Your task to perform on an android device: Do I have any events this weekend? Image 0: 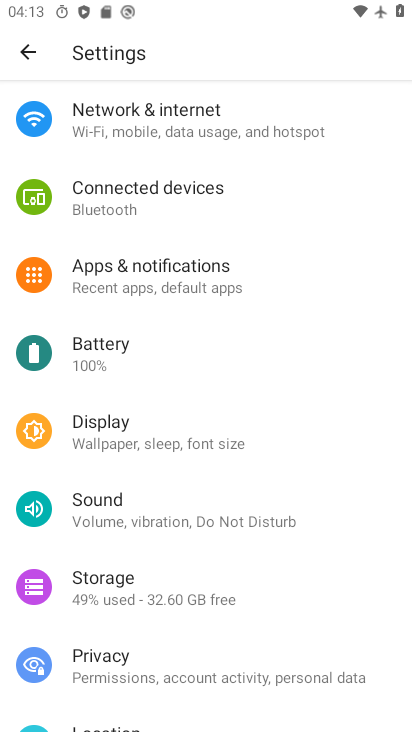
Step 0: press home button
Your task to perform on an android device: Do I have any events this weekend? Image 1: 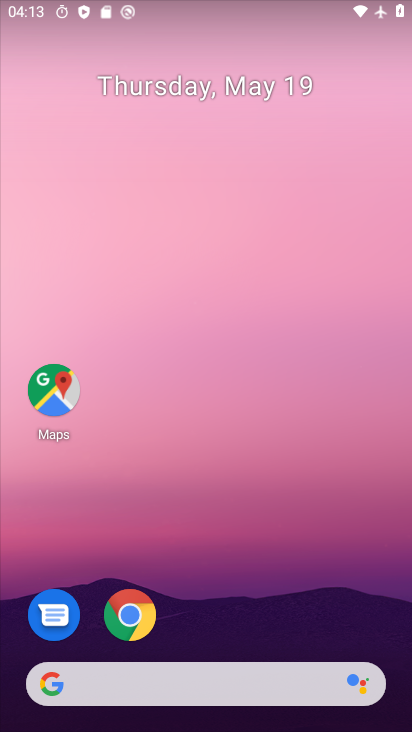
Step 1: drag from (220, 634) to (270, 37)
Your task to perform on an android device: Do I have any events this weekend? Image 2: 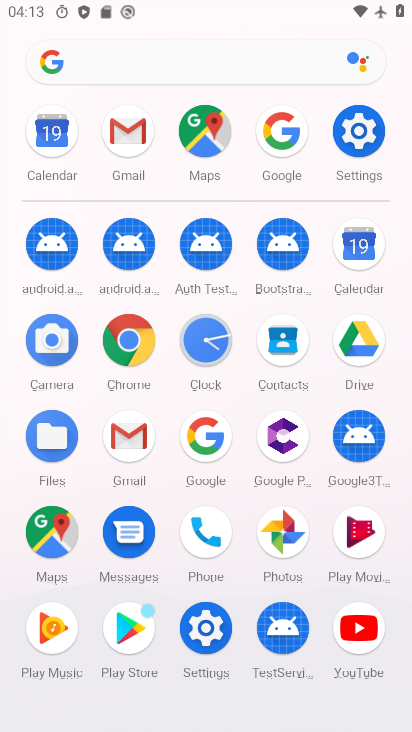
Step 2: click (53, 139)
Your task to perform on an android device: Do I have any events this weekend? Image 3: 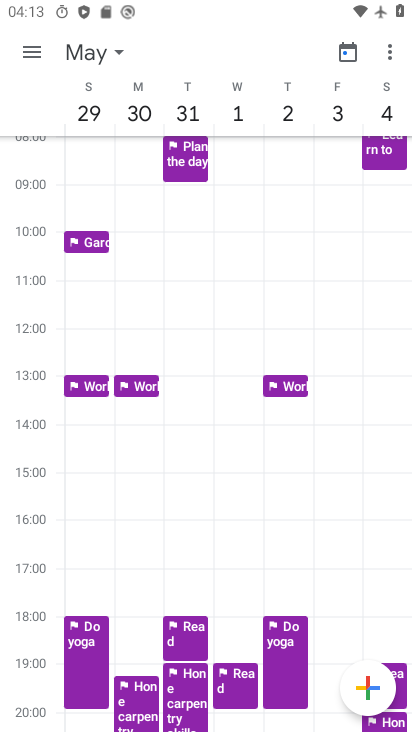
Step 3: drag from (268, 306) to (266, 373)
Your task to perform on an android device: Do I have any events this weekend? Image 4: 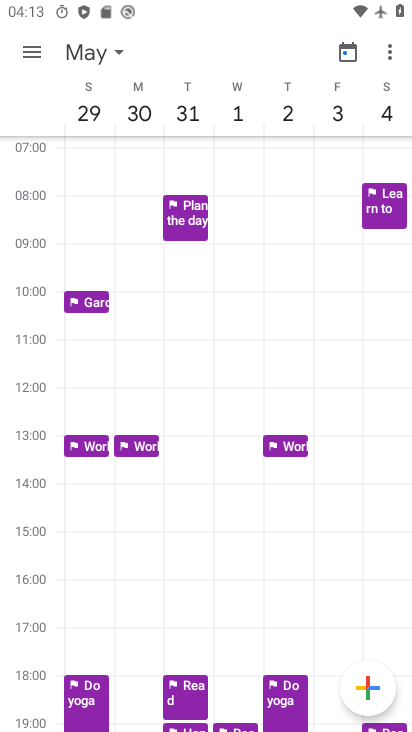
Step 4: click (345, 55)
Your task to perform on an android device: Do I have any events this weekend? Image 5: 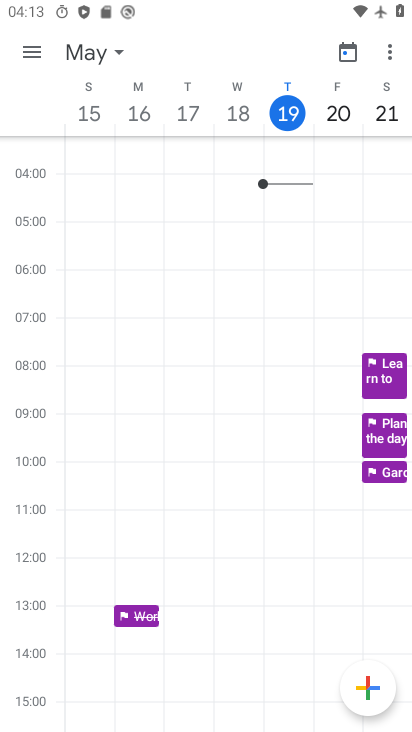
Step 5: drag from (397, 379) to (397, 306)
Your task to perform on an android device: Do I have any events this weekend? Image 6: 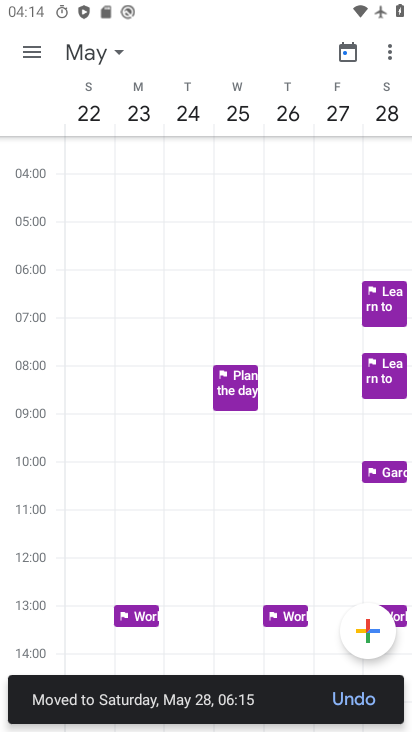
Step 6: click (346, 46)
Your task to perform on an android device: Do I have any events this weekend? Image 7: 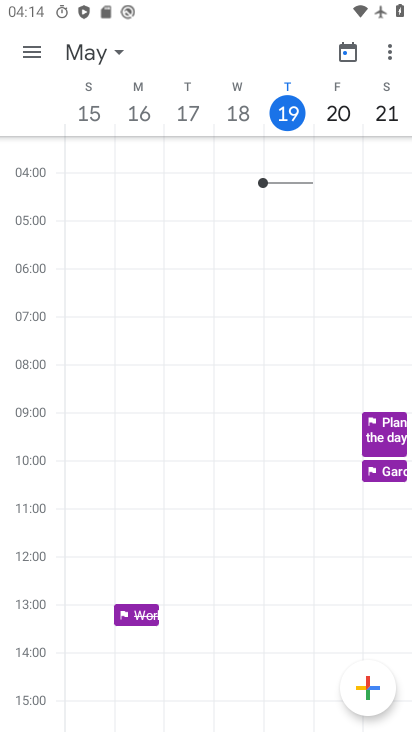
Step 7: drag from (339, 489) to (316, 258)
Your task to perform on an android device: Do I have any events this weekend? Image 8: 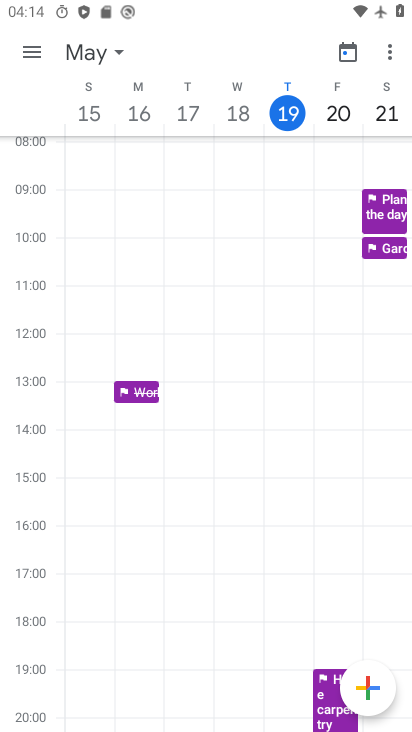
Step 8: drag from (364, 434) to (362, 156)
Your task to perform on an android device: Do I have any events this weekend? Image 9: 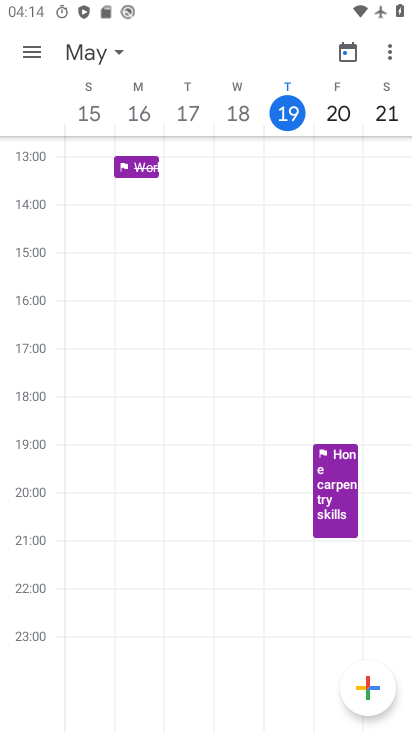
Step 9: drag from (318, 579) to (335, 240)
Your task to perform on an android device: Do I have any events this weekend? Image 10: 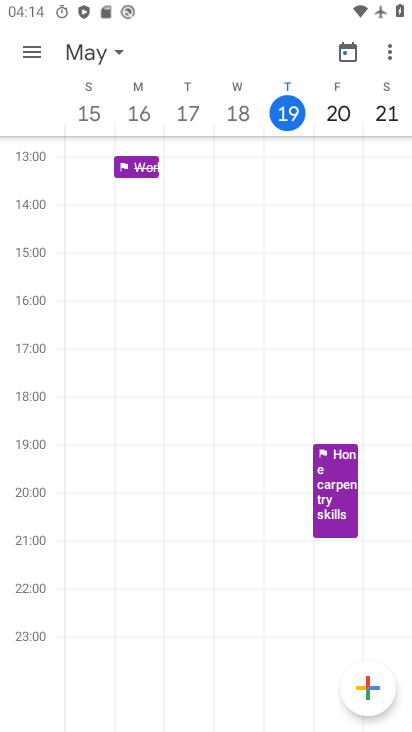
Step 10: drag from (335, 231) to (327, 676)
Your task to perform on an android device: Do I have any events this weekend? Image 11: 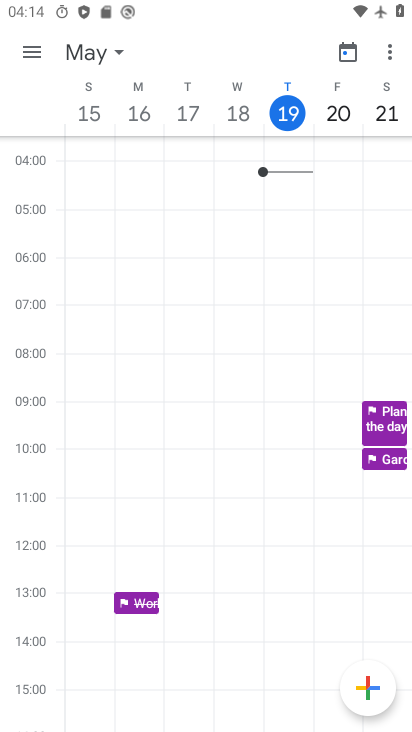
Step 11: click (393, 456)
Your task to perform on an android device: Do I have any events this weekend? Image 12: 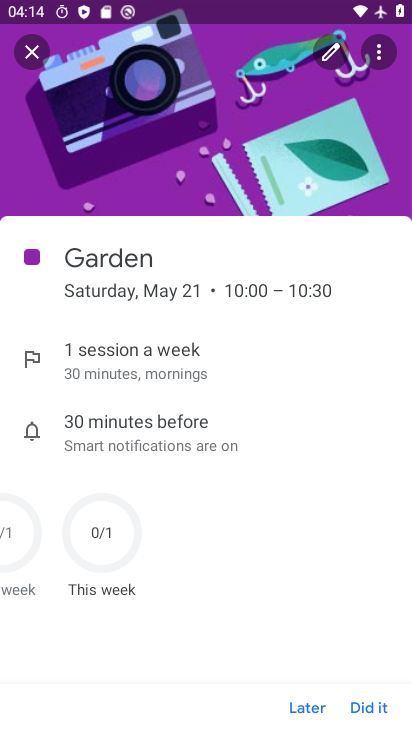
Step 12: task complete